Your task to perform on an android device: allow cookies in the chrome app Image 0: 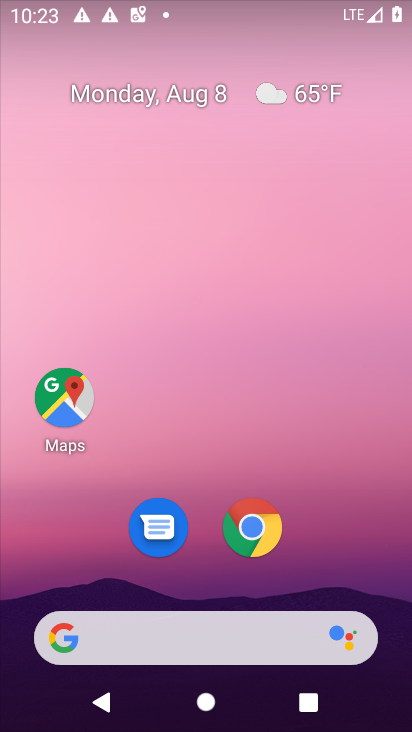
Step 0: click (253, 522)
Your task to perform on an android device: allow cookies in the chrome app Image 1: 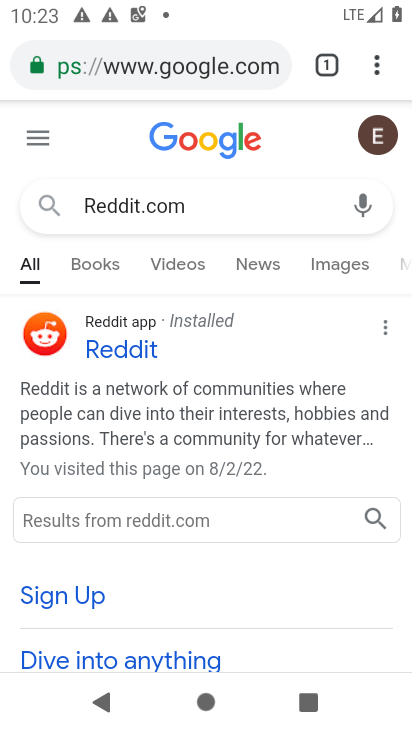
Step 1: click (375, 66)
Your task to perform on an android device: allow cookies in the chrome app Image 2: 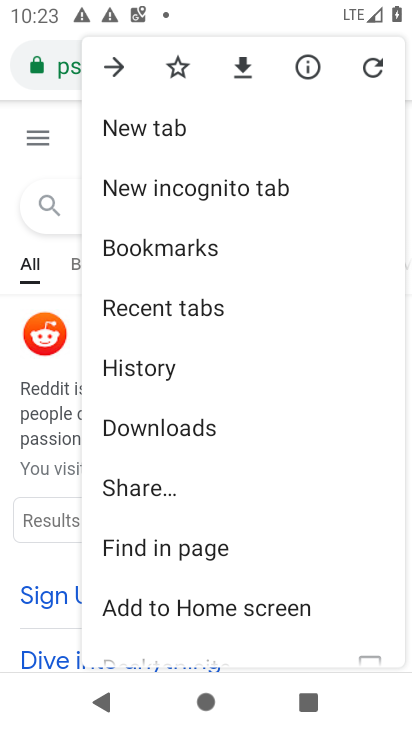
Step 2: drag from (273, 639) to (278, 320)
Your task to perform on an android device: allow cookies in the chrome app Image 3: 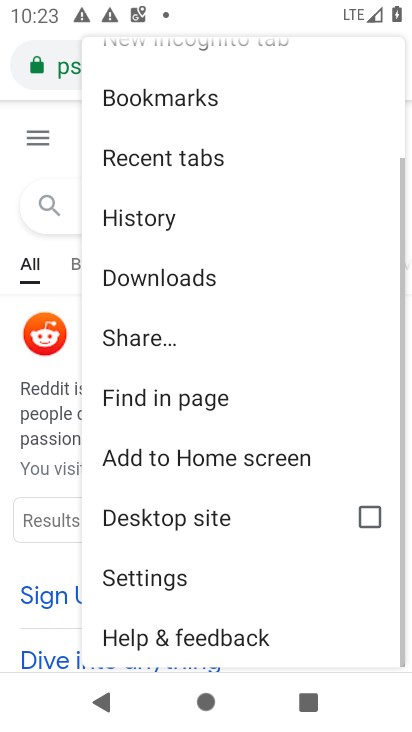
Step 3: click (163, 574)
Your task to perform on an android device: allow cookies in the chrome app Image 4: 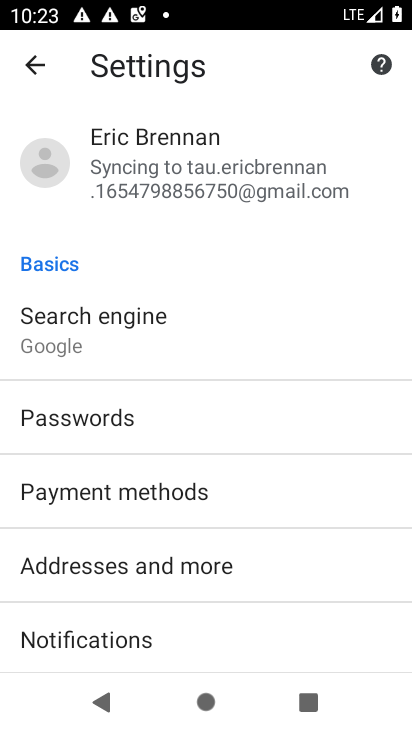
Step 4: drag from (274, 648) to (291, 353)
Your task to perform on an android device: allow cookies in the chrome app Image 5: 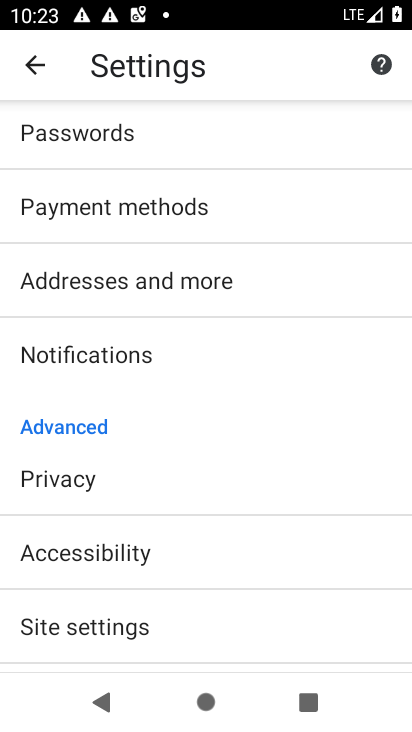
Step 5: click (83, 624)
Your task to perform on an android device: allow cookies in the chrome app Image 6: 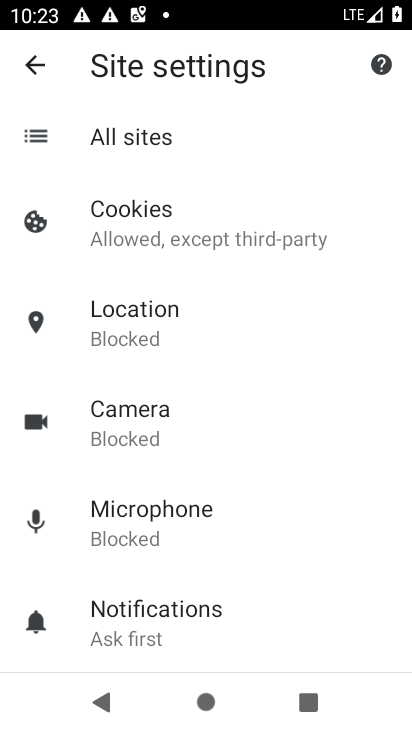
Step 6: click (131, 216)
Your task to perform on an android device: allow cookies in the chrome app Image 7: 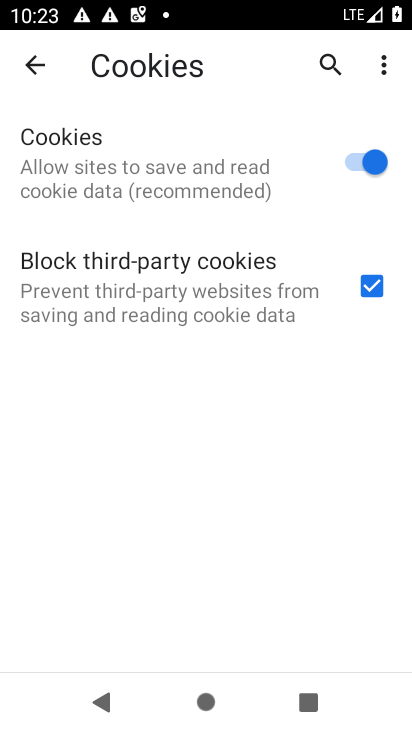
Step 7: task complete